Your task to perform on an android device: See recent photos Image 0: 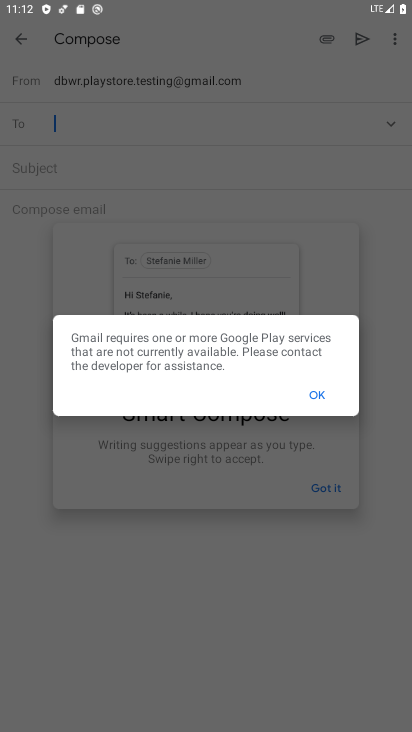
Step 0: press home button
Your task to perform on an android device: See recent photos Image 1: 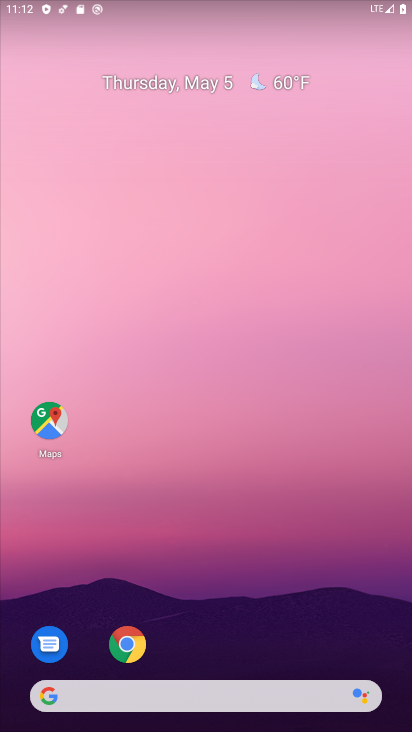
Step 1: drag from (321, 620) to (305, 67)
Your task to perform on an android device: See recent photos Image 2: 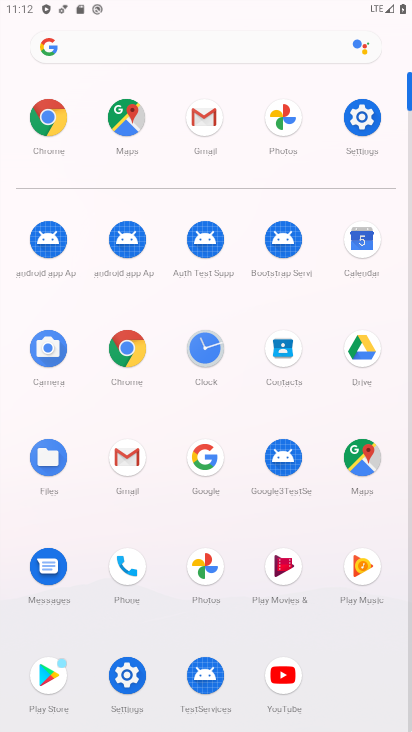
Step 2: click (203, 552)
Your task to perform on an android device: See recent photos Image 3: 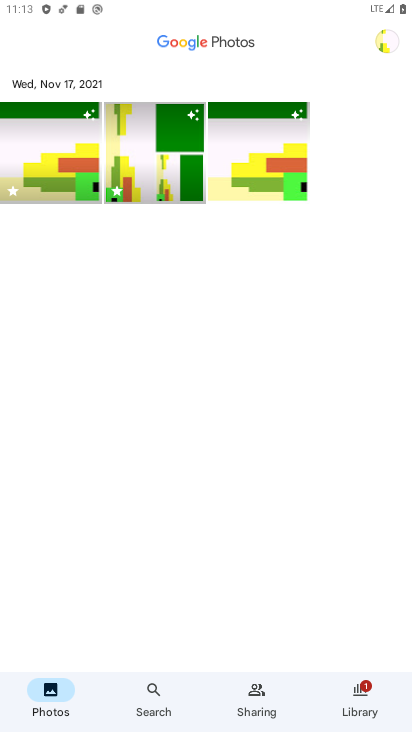
Step 3: task complete